Your task to perform on an android device: make emails show in primary in the gmail app Image 0: 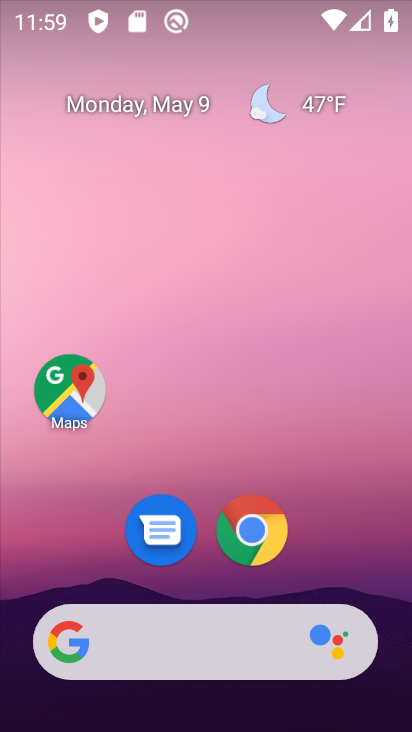
Step 0: drag from (329, 485) to (334, 153)
Your task to perform on an android device: make emails show in primary in the gmail app Image 1: 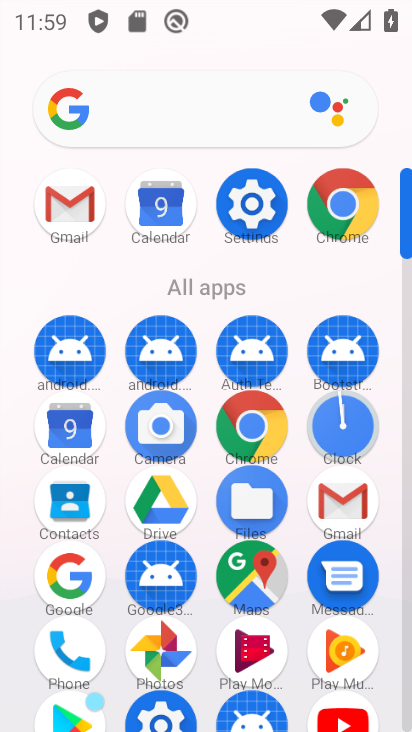
Step 1: click (326, 524)
Your task to perform on an android device: make emails show in primary in the gmail app Image 2: 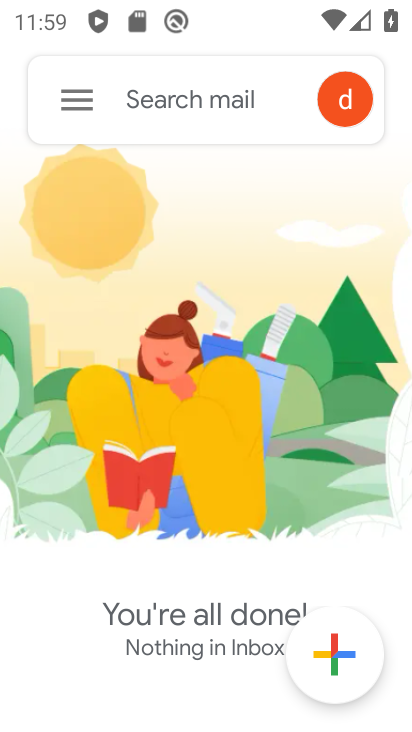
Step 2: click (91, 100)
Your task to perform on an android device: make emails show in primary in the gmail app Image 3: 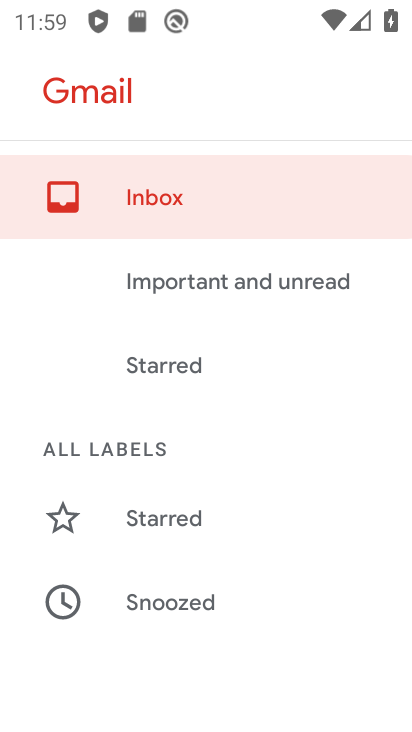
Step 3: drag from (200, 616) to (202, 257)
Your task to perform on an android device: make emails show in primary in the gmail app Image 4: 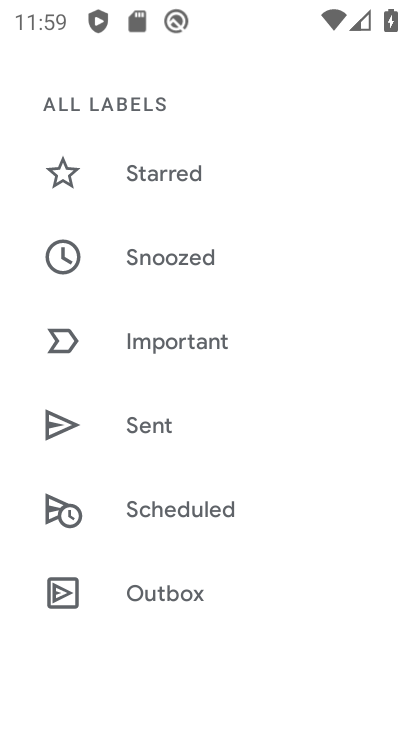
Step 4: drag from (253, 581) to (318, 228)
Your task to perform on an android device: make emails show in primary in the gmail app Image 5: 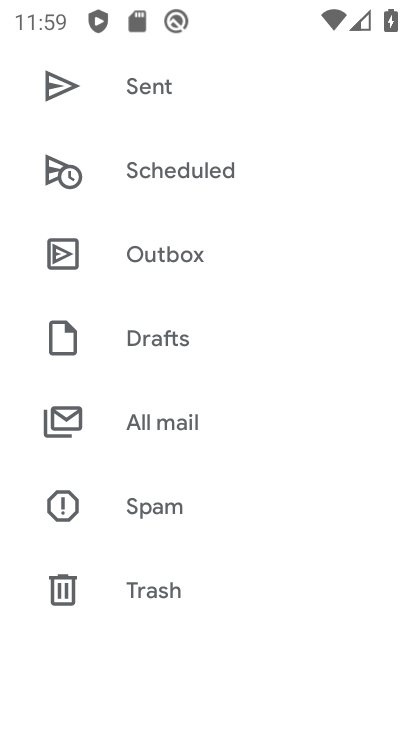
Step 5: drag from (278, 547) to (308, 199)
Your task to perform on an android device: make emails show in primary in the gmail app Image 6: 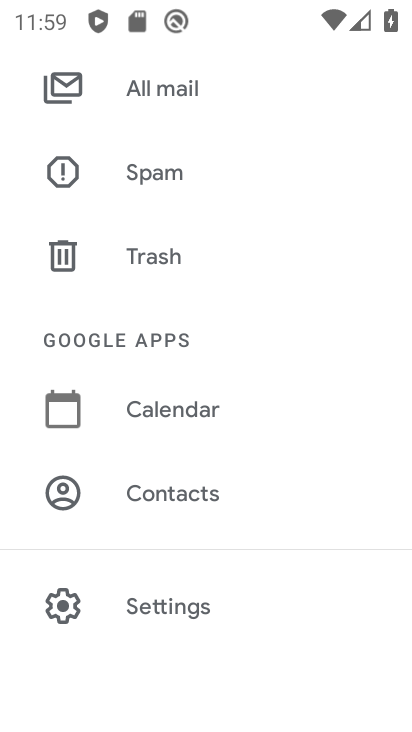
Step 6: drag from (276, 542) to (272, 166)
Your task to perform on an android device: make emails show in primary in the gmail app Image 7: 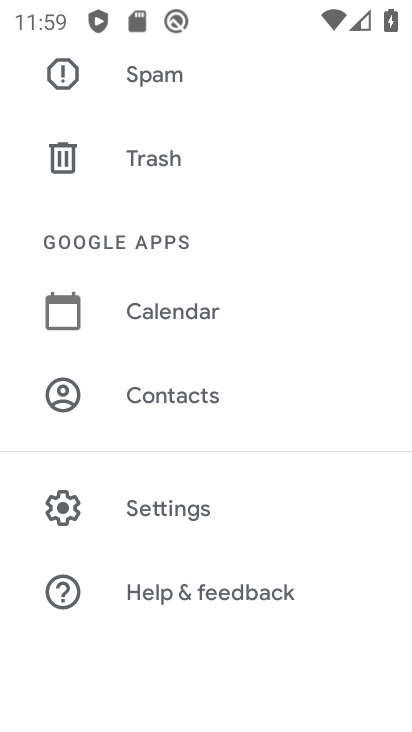
Step 7: click (222, 508)
Your task to perform on an android device: make emails show in primary in the gmail app Image 8: 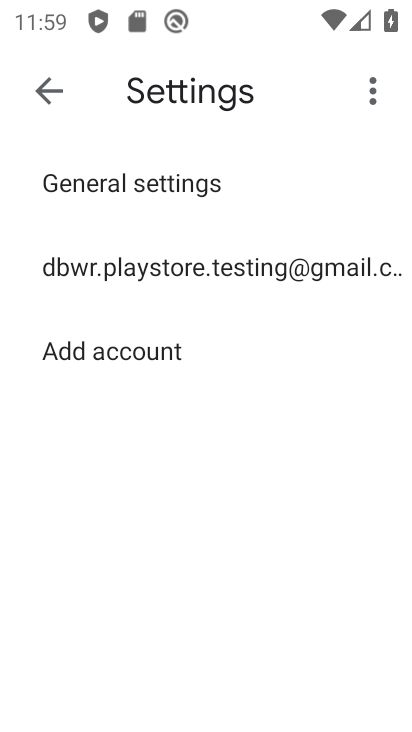
Step 8: click (223, 270)
Your task to perform on an android device: make emails show in primary in the gmail app Image 9: 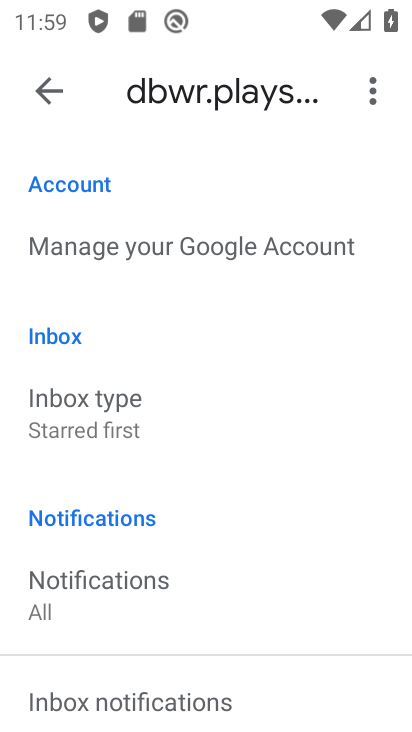
Step 9: click (109, 430)
Your task to perform on an android device: make emails show in primary in the gmail app Image 10: 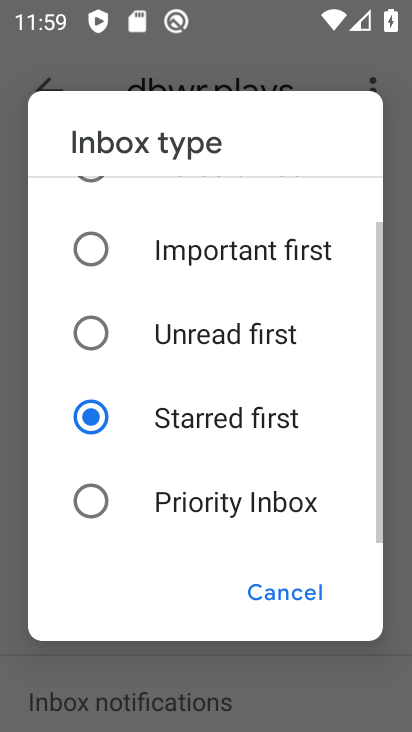
Step 10: drag from (162, 210) to (153, 465)
Your task to perform on an android device: make emails show in primary in the gmail app Image 11: 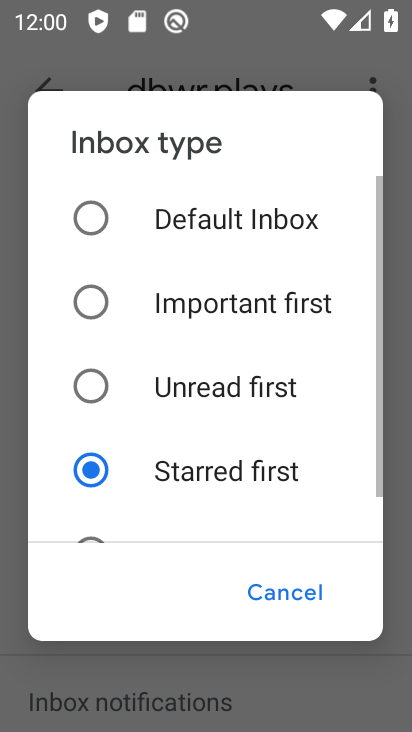
Step 11: click (167, 221)
Your task to perform on an android device: make emails show in primary in the gmail app Image 12: 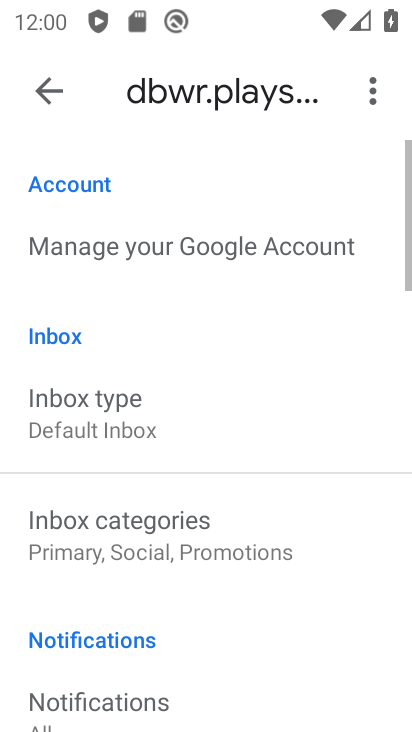
Step 12: click (38, 92)
Your task to perform on an android device: make emails show in primary in the gmail app Image 13: 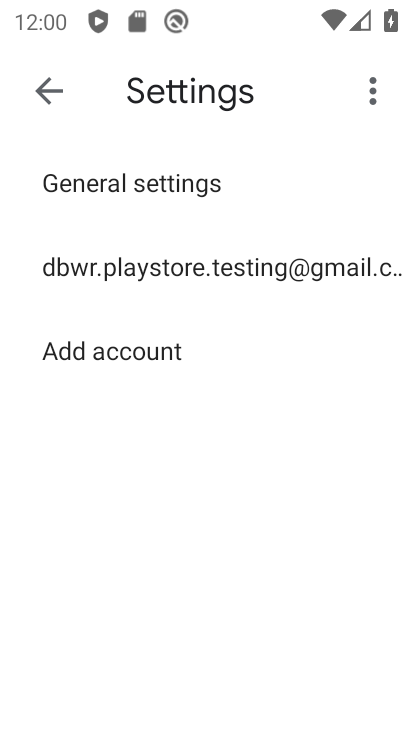
Step 13: click (38, 92)
Your task to perform on an android device: make emails show in primary in the gmail app Image 14: 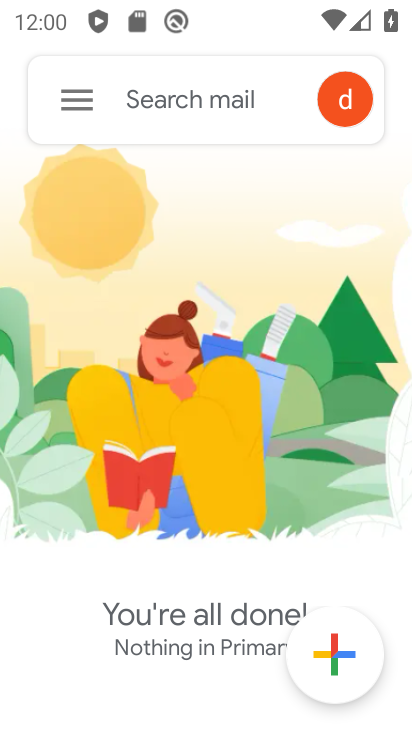
Step 14: click (92, 116)
Your task to perform on an android device: make emails show in primary in the gmail app Image 15: 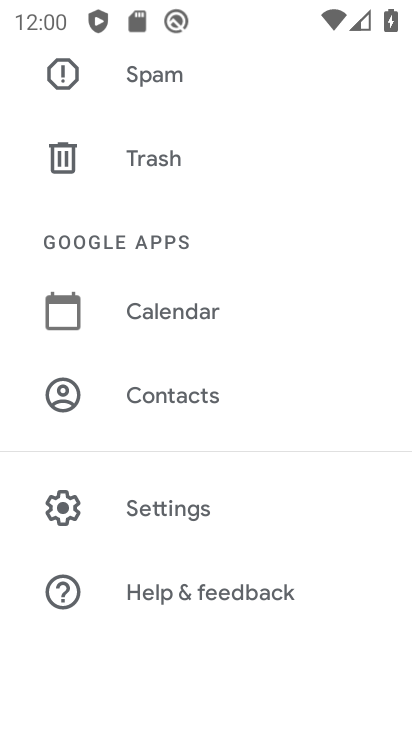
Step 15: drag from (149, 110) to (203, 551)
Your task to perform on an android device: make emails show in primary in the gmail app Image 16: 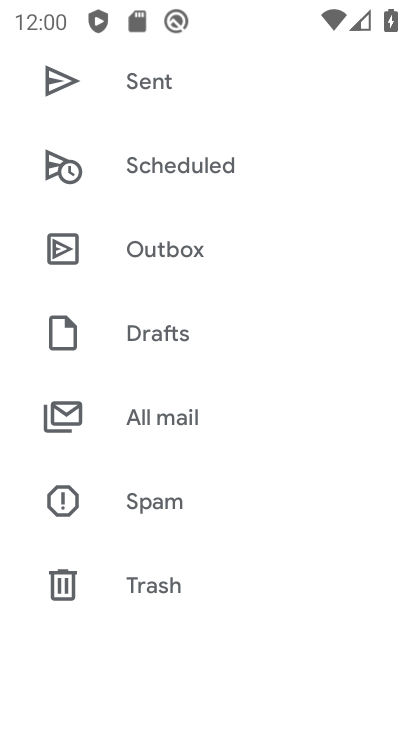
Step 16: drag from (178, 129) to (276, 581)
Your task to perform on an android device: make emails show in primary in the gmail app Image 17: 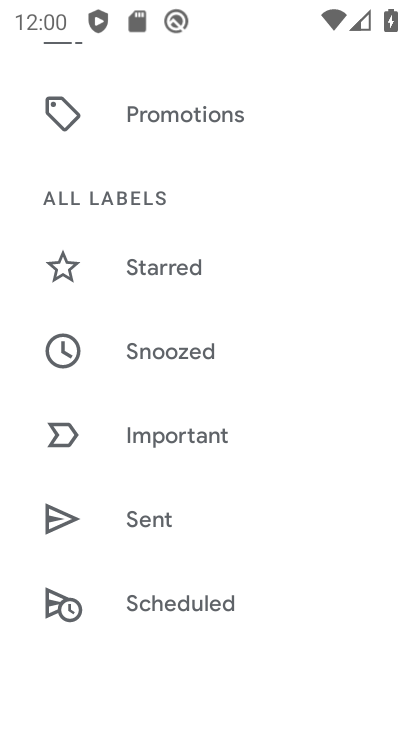
Step 17: drag from (222, 62) to (308, 608)
Your task to perform on an android device: make emails show in primary in the gmail app Image 18: 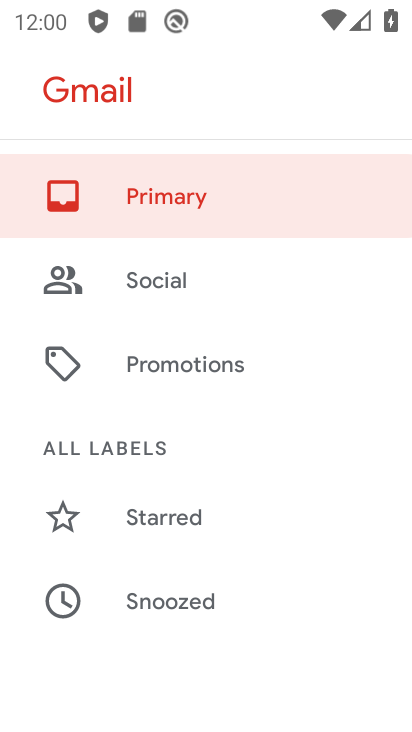
Step 18: click (235, 175)
Your task to perform on an android device: make emails show in primary in the gmail app Image 19: 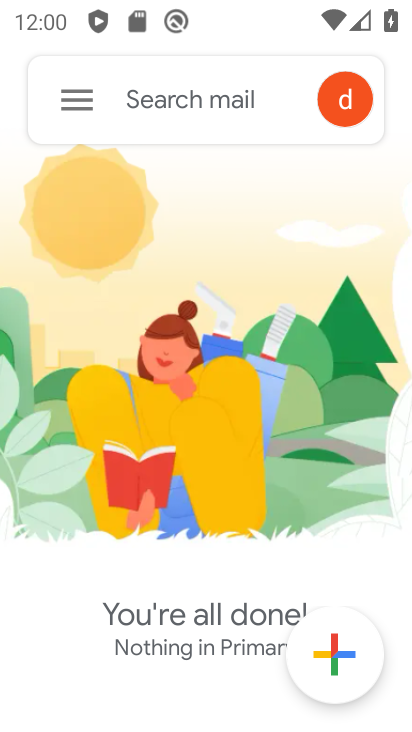
Step 19: task complete